Your task to perform on an android device: Open Amazon Image 0: 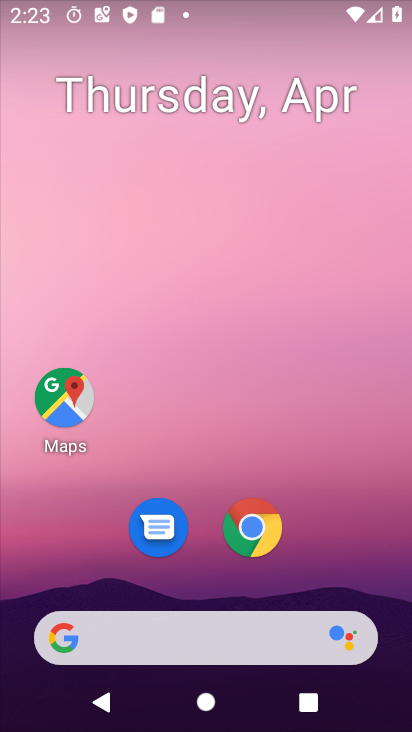
Step 0: click (248, 530)
Your task to perform on an android device: Open Amazon Image 1: 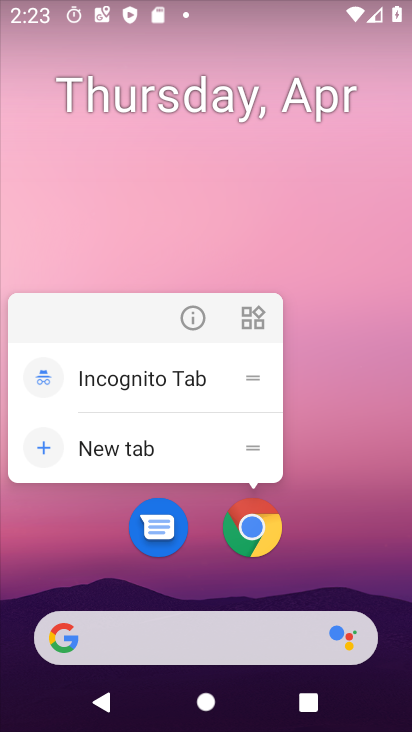
Step 1: click (254, 527)
Your task to perform on an android device: Open Amazon Image 2: 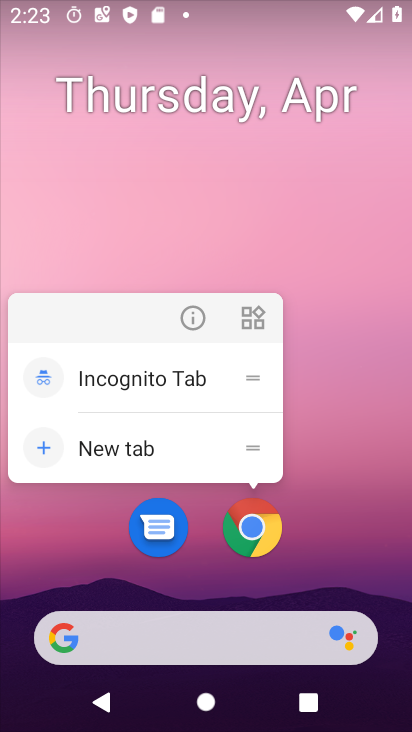
Step 2: drag from (363, 527) to (360, 15)
Your task to perform on an android device: Open Amazon Image 3: 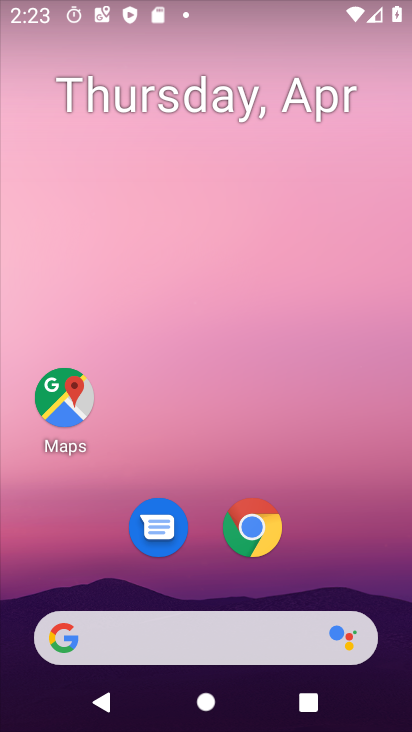
Step 3: drag from (340, 494) to (320, 160)
Your task to perform on an android device: Open Amazon Image 4: 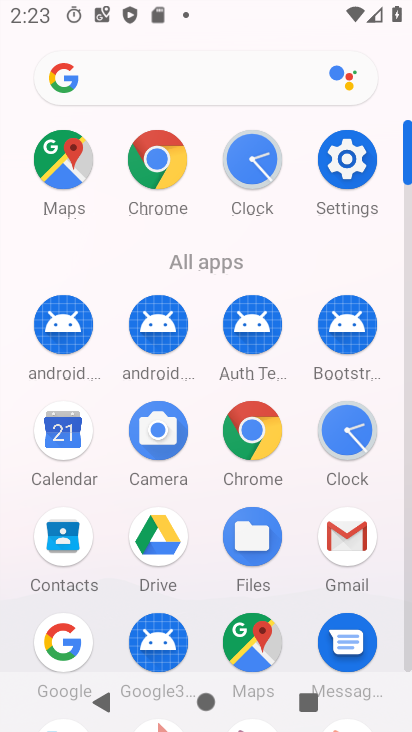
Step 4: click (254, 441)
Your task to perform on an android device: Open Amazon Image 5: 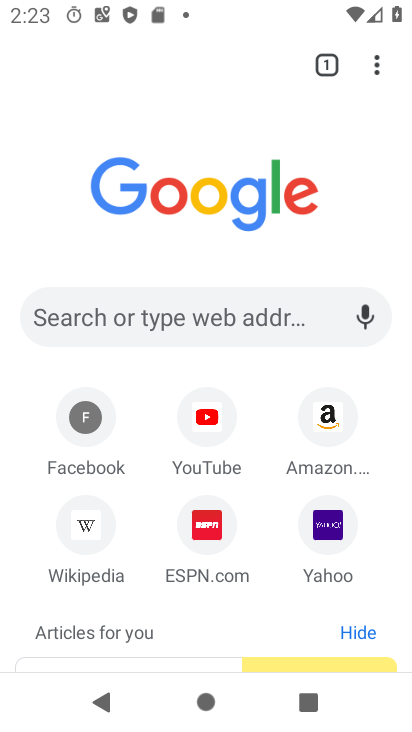
Step 5: click (323, 424)
Your task to perform on an android device: Open Amazon Image 6: 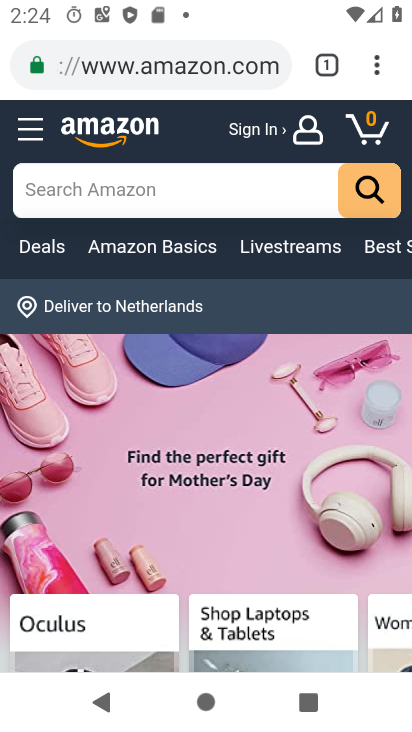
Step 6: task complete